Your task to perform on an android device: Go to CNN.com Image 0: 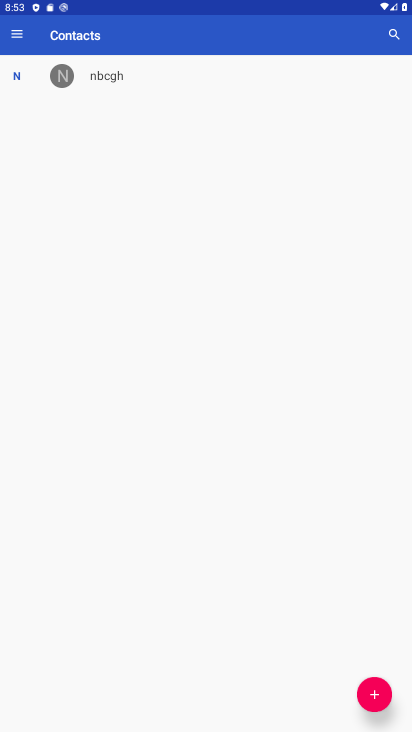
Step 0: press home button
Your task to perform on an android device: Go to CNN.com Image 1: 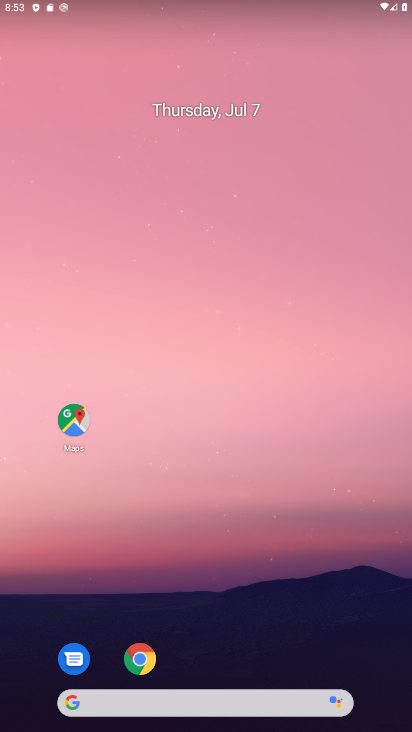
Step 1: click (143, 667)
Your task to perform on an android device: Go to CNN.com Image 2: 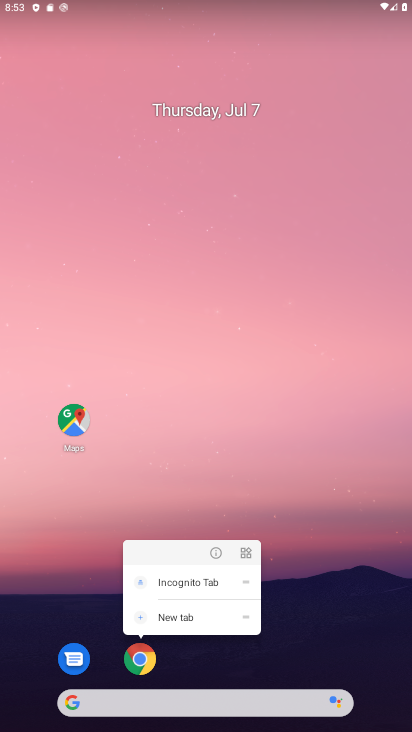
Step 2: click (145, 663)
Your task to perform on an android device: Go to CNN.com Image 3: 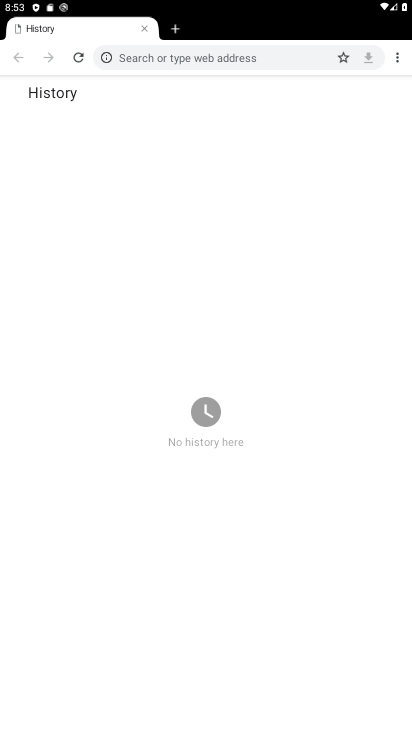
Step 3: click (213, 53)
Your task to perform on an android device: Go to CNN.com Image 4: 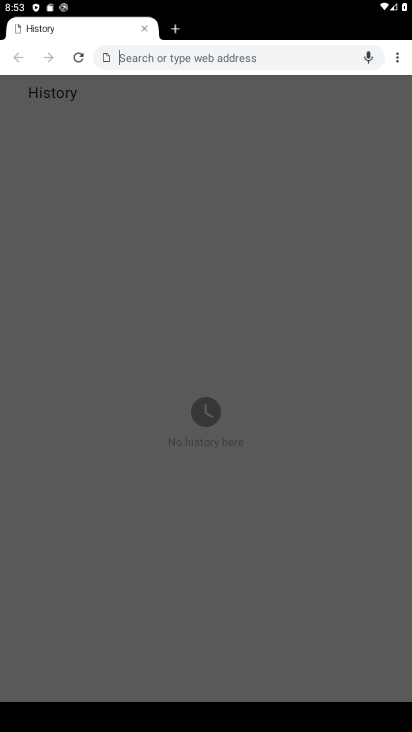
Step 4: type "CNN.com"
Your task to perform on an android device: Go to CNN.com Image 5: 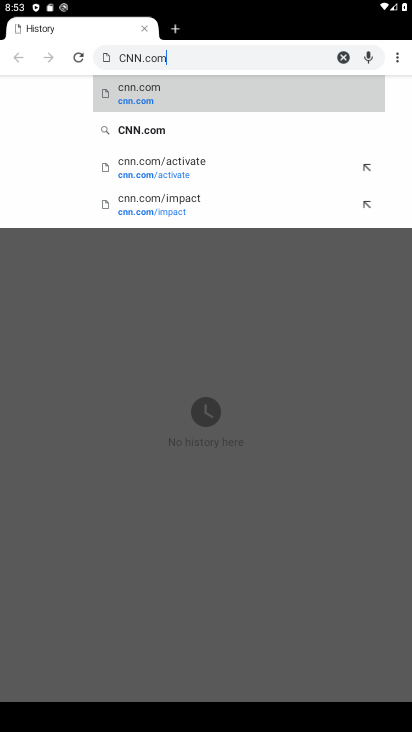
Step 5: click (123, 94)
Your task to perform on an android device: Go to CNN.com Image 6: 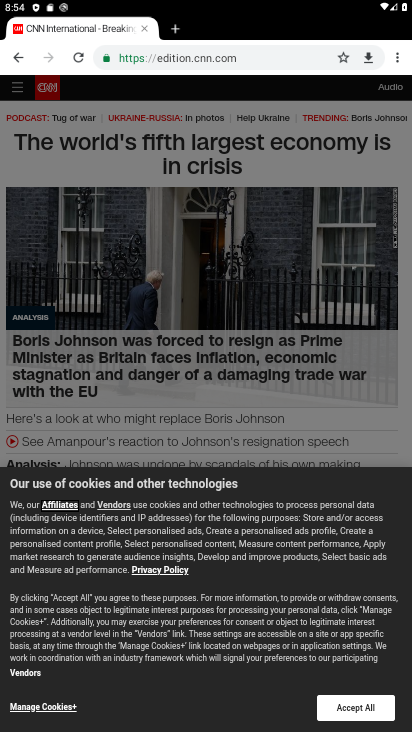
Step 6: task complete